Your task to perform on an android device: open the mobile data screen to see how much data has been used Image 0: 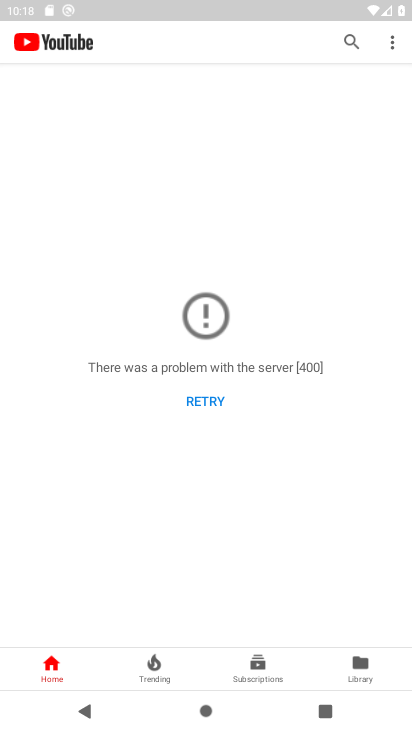
Step 0: press home button
Your task to perform on an android device: open the mobile data screen to see how much data has been used Image 1: 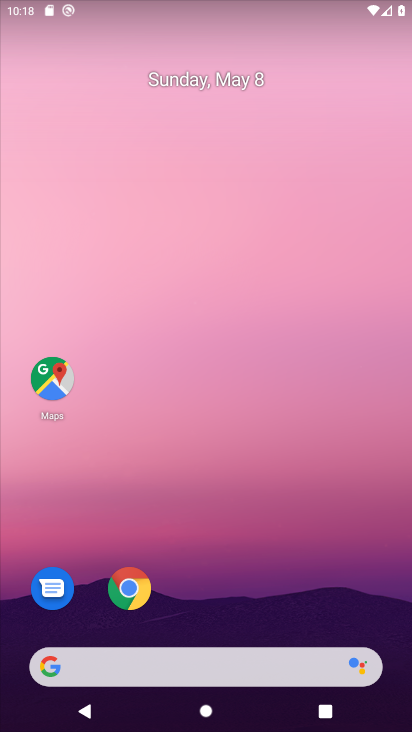
Step 1: drag from (300, 589) to (271, 24)
Your task to perform on an android device: open the mobile data screen to see how much data has been used Image 2: 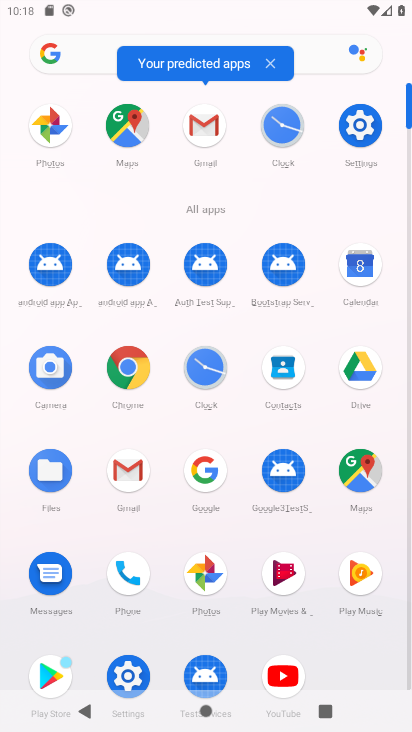
Step 2: click (364, 123)
Your task to perform on an android device: open the mobile data screen to see how much data has been used Image 3: 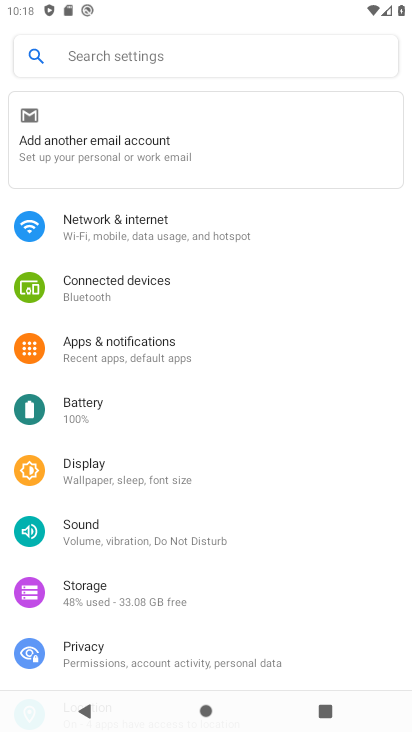
Step 3: click (174, 225)
Your task to perform on an android device: open the mobile data screen to see how much data has been used Image 4: 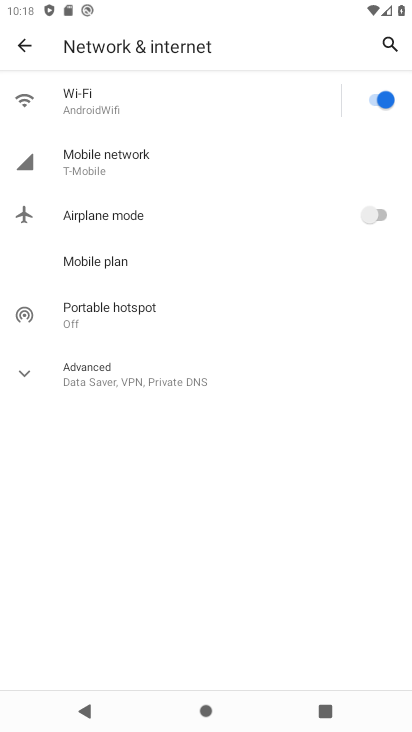
Step 4: click (177, 160)
Your task to perform on an android device: open the mobile data screen to see how much data has been used Image 5: 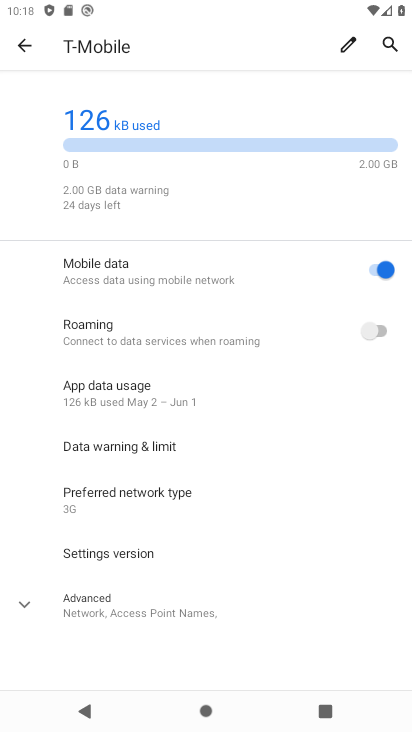
Step 5: task complete